Your task to perform on an android device: Go to internet settings Image 0: 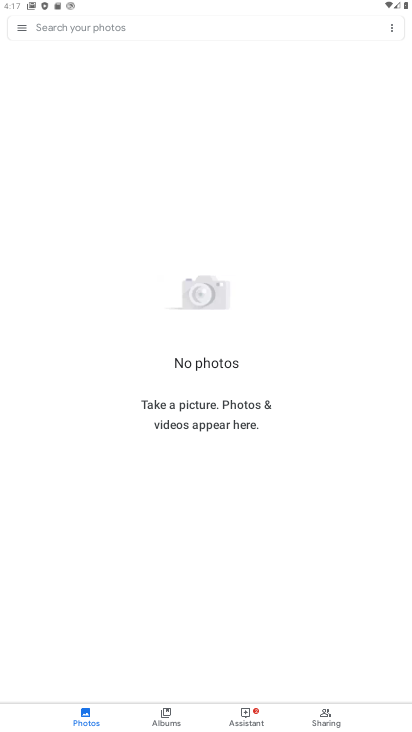
Step 0: press home button
Your task to perform on an android device: Go to internet settings Image 1: 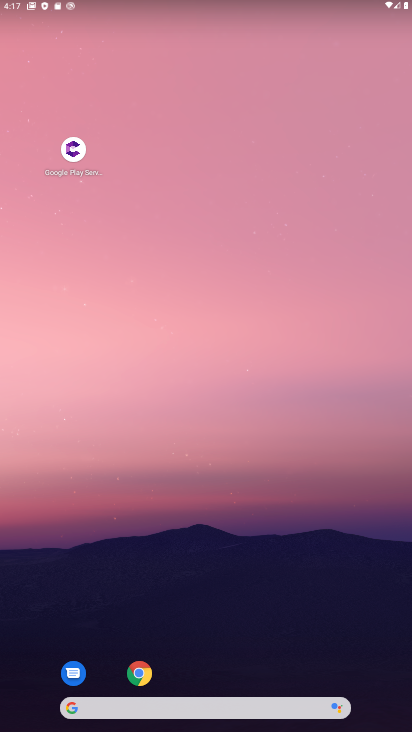
Step 1: drag from (267, 487) to (215, 0)
Your task to perform on an android device: Go to internet settings Image 2: 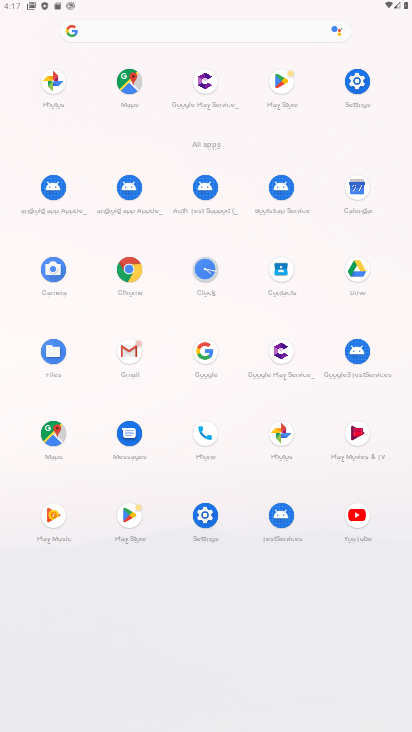
Step 2: click (367, 78)
Your task to perform on an android device: Go to internet settings Image 3: 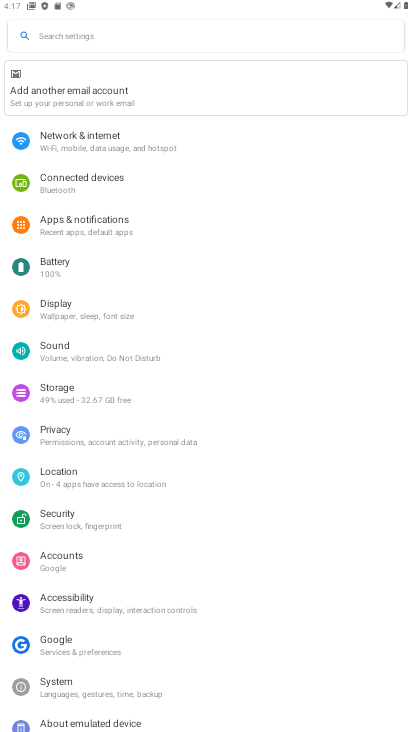
Step 3: click (104, 156)
Your task to perform on an android device: Go to internet settings Image 4: 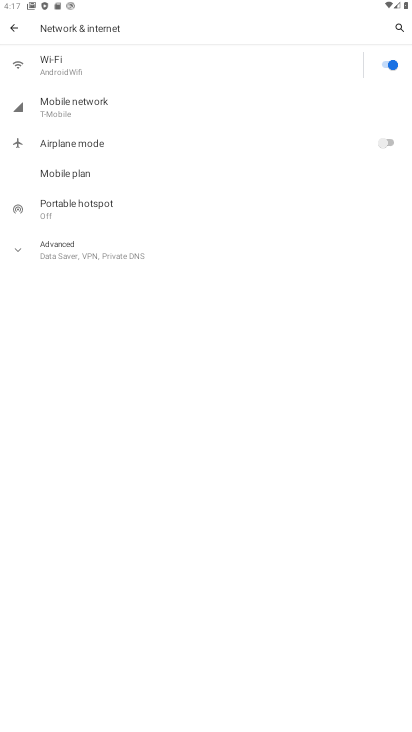
Step 4: click (79, 110)
Your task to perform on an android device: Go to internet settings Image 5: 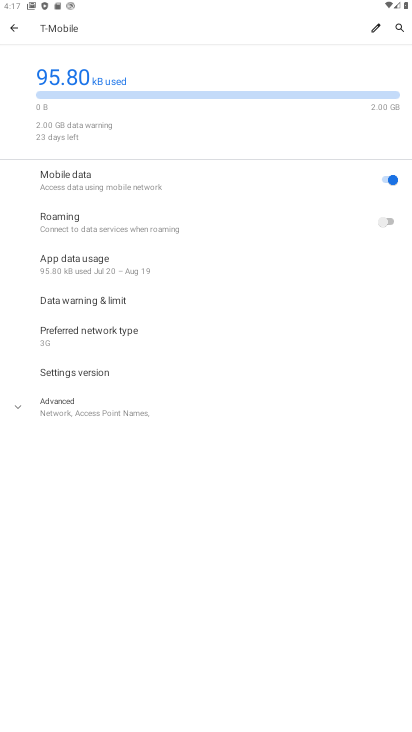
Step 5: task complete